Your task to perform on an android device: Show me the alarms in the clock app Image 0: 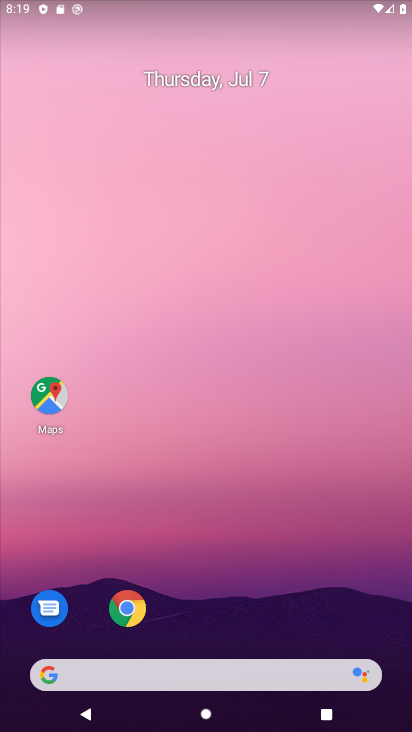
Step 0: drag from (205, 662) to (245, 191)
Your task to perform on an android device: Show me the alarms in the clock app Image 1: 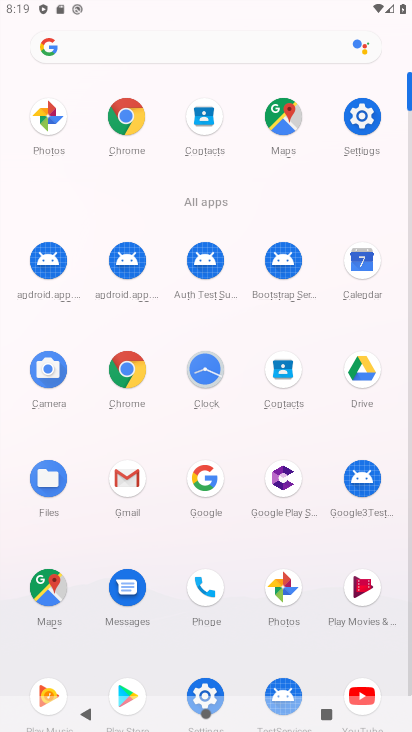
Step 1: click (208, 373)
Your task to perform on an android device: Show me the alarms in the clock app Image 2: 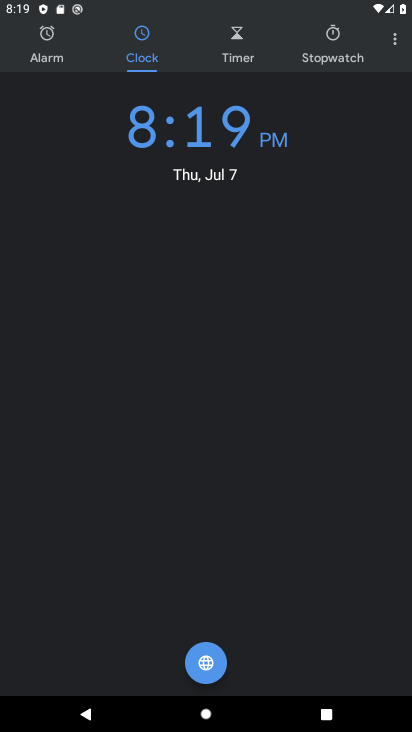
Step 2: click (40, 51)
Your task to perform on an android device: Show me the alarms in the clock app Image 3: 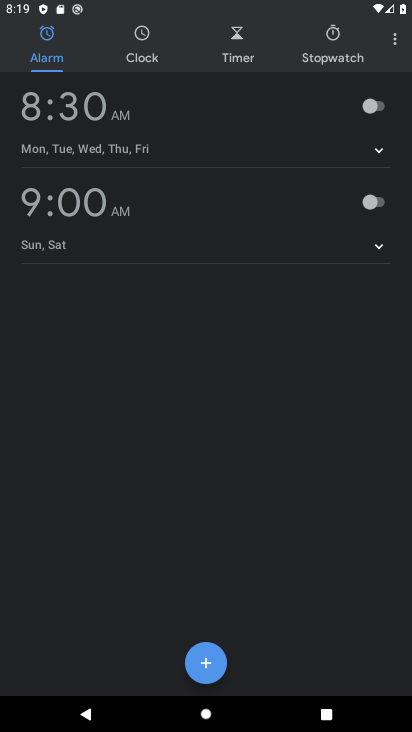
Step 3: click (205, 660)
Your task to perform on an android device: Show me the alarms in the clock app Image 4: 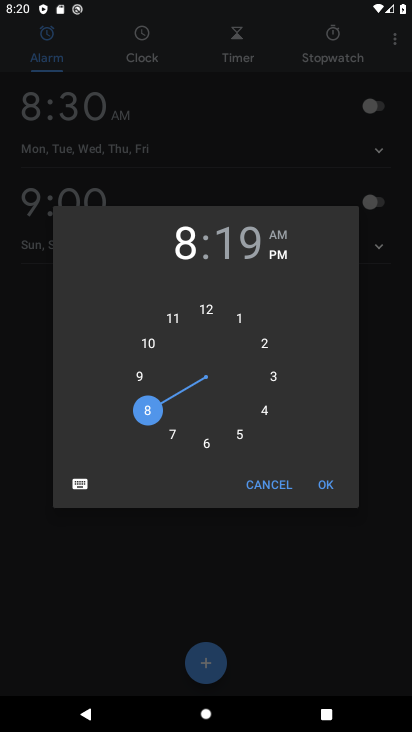
Step 4: click (208, 308)
Your task to perform on an android device: Show me the alarms in the clock app Image 5: 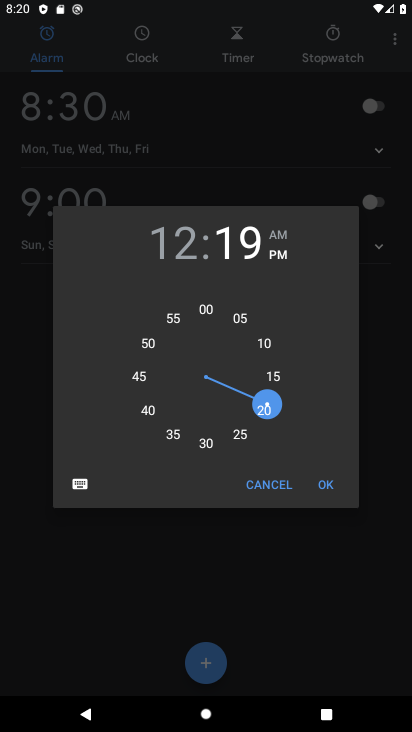
Step 5: click (239, 439)
Your task to perform on an android device: Show me the alarms in the clock app Image 6: 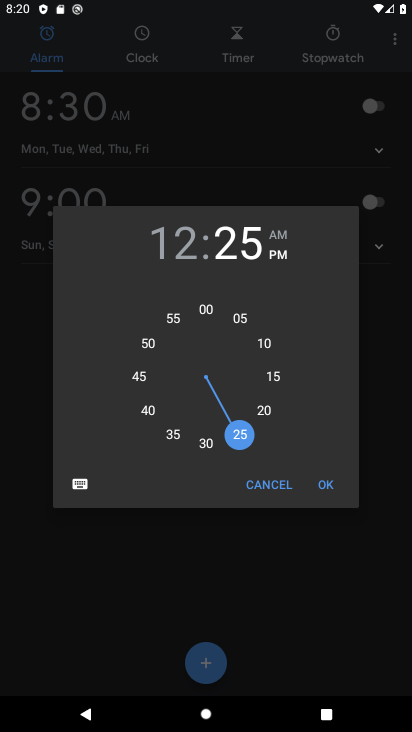
Step 6: click (210, 446)
Your task to perform on an android device: Show me the alarms in the clock app Image 7: 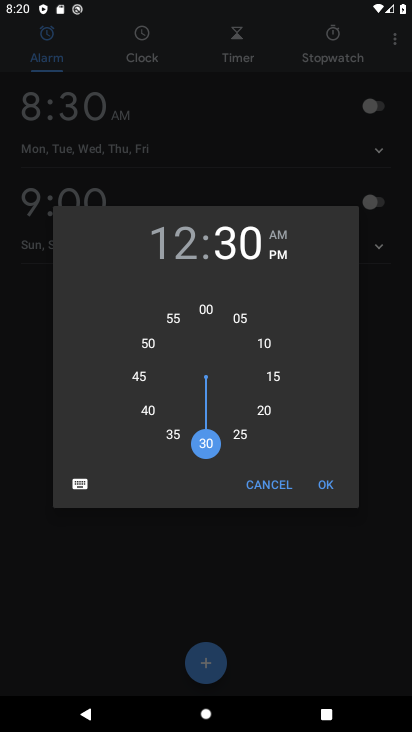
Step 7: click (326, 484)
Your task to perform on an android device: Show me the alarms in the clock app Image 8: 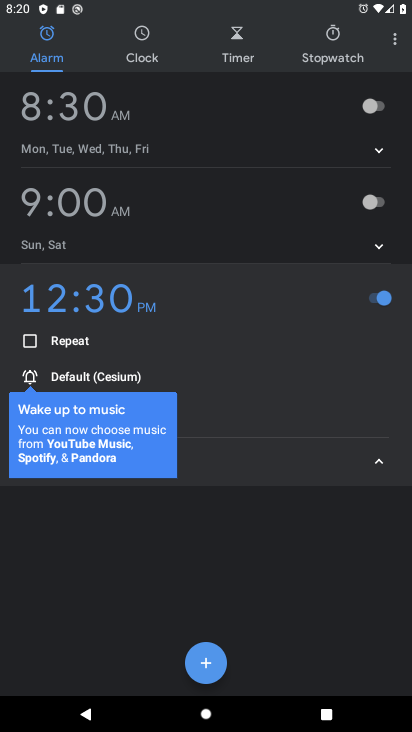
Step 8: task complete